Your task to perform on an android device: Open wifi settings Image 0: 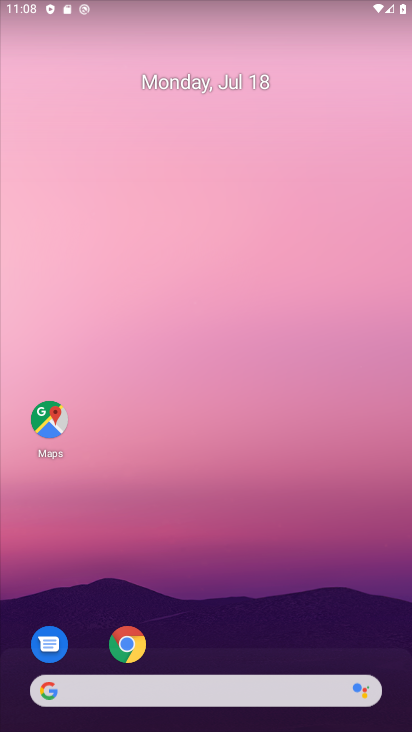
Step 0: drag from (222, 654) to (220, 187)
Your task to perform on an android device: Open wifi settings Image 1: 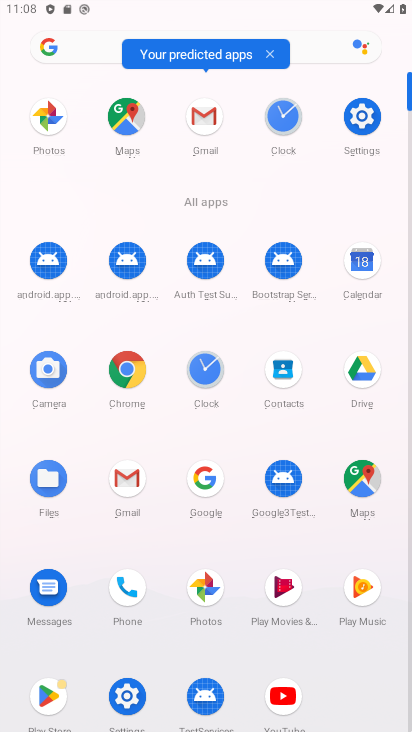
Step 1: click (123, 694)
Your task to perform on an android device: Open wifi settings Image 2: 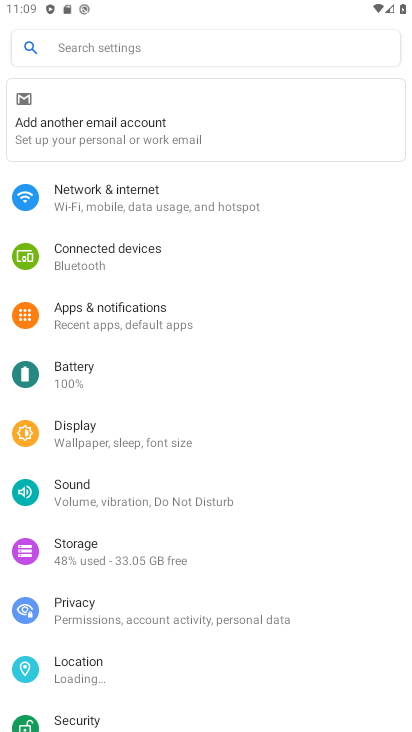
Step 2: click (178, 206)
Your task to perform on an android device: Open wifi settings Image 3: 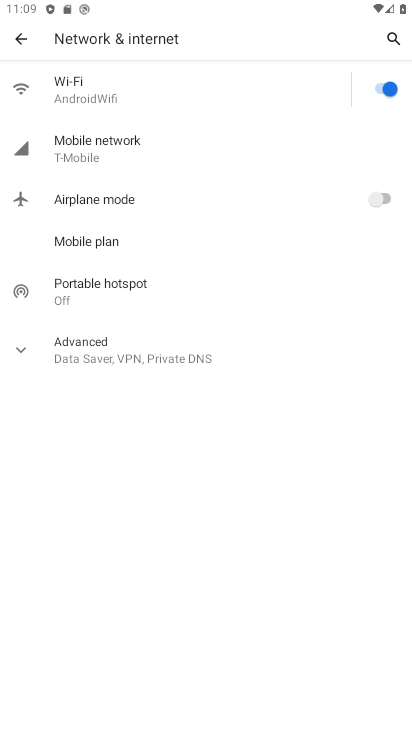
Step 3: click (136, 93)
Your task to perform on an android device: Open wifi settings Image 4: 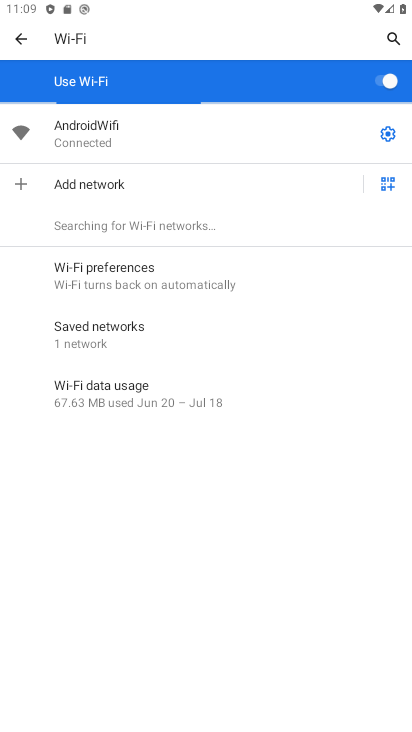
Step 4: task complete